Your task to perform on an android device: change your default location settings in chrome Image 0: 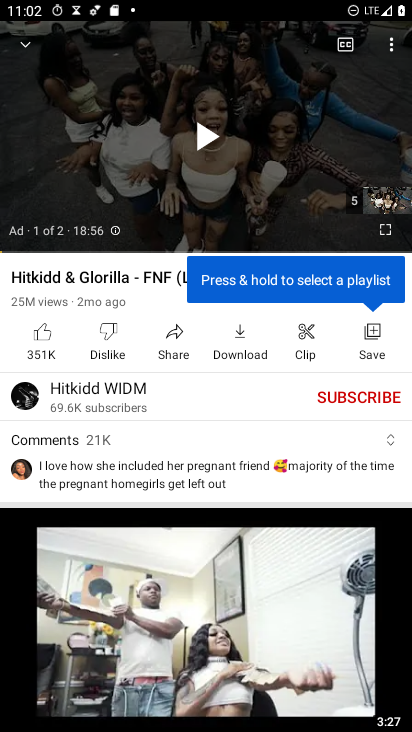
Step 0: press home button
Your task to perform on an android device: change your default location settings in chrome Image 1: 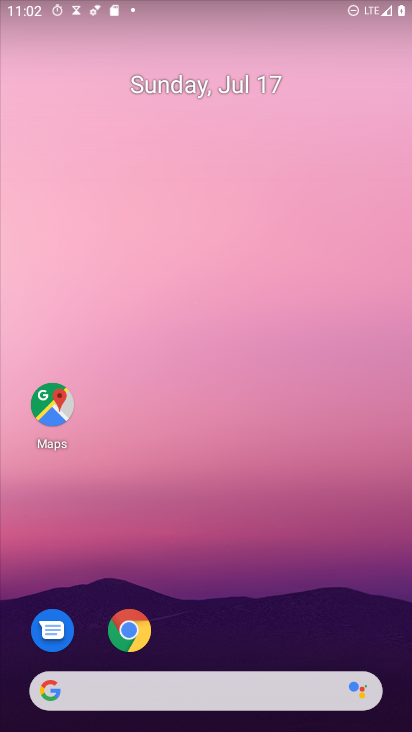
Step 1: drag from (272, 686) to (331, 69)
Your task to perform on an android device: change your default location settings in chrome Image 2: 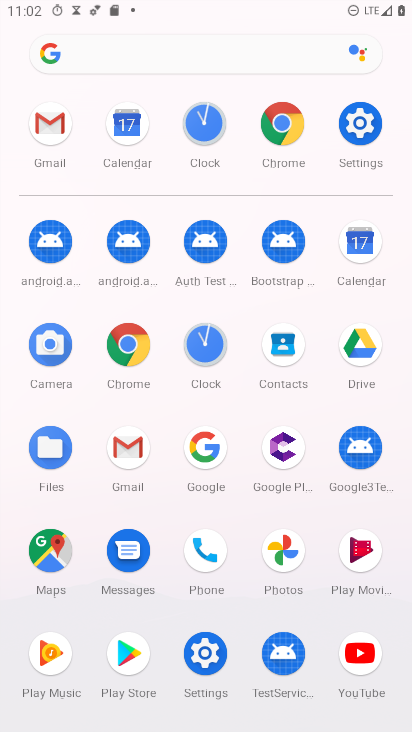
Step 2: click (130, 341)
Your task to perform on an android device: change your default location settings in chrome Image 3: 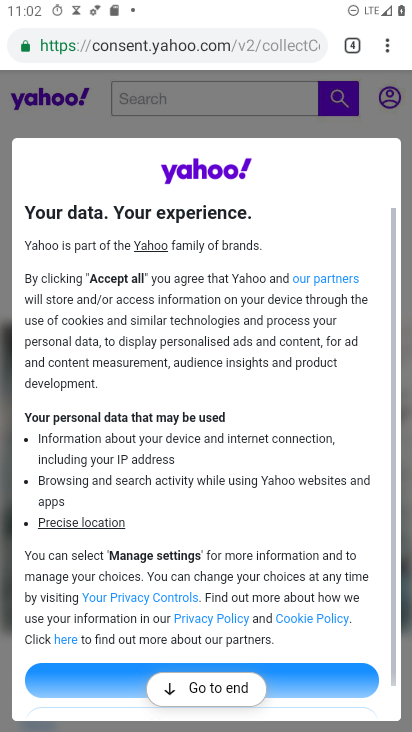
Step 3: click (381, 37)
Your task to perform on an android device: change your default location settings in chrome Image 4: 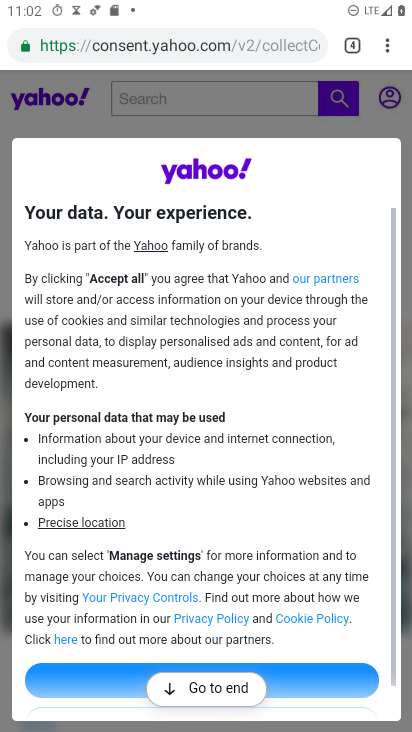
Step 4: drag from (382, 47) to (254, 550)
Your task to perform on an android device: change your default location settings in chrome Image 5: 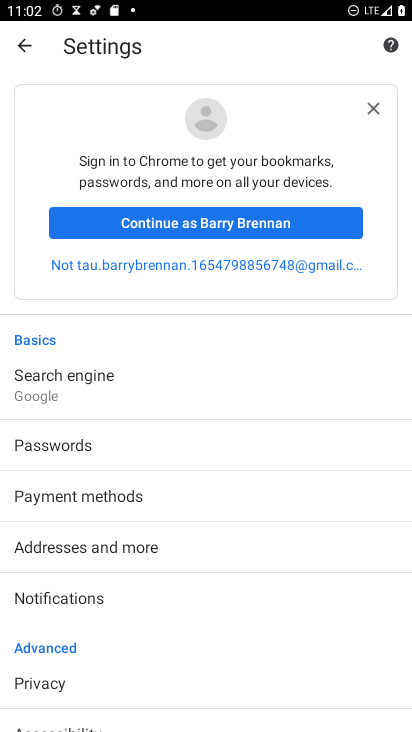
Step 5: drag from (188, 567) to (212, 258)
Your task to perform on an android device: change your default location settings in chrome Image 6: 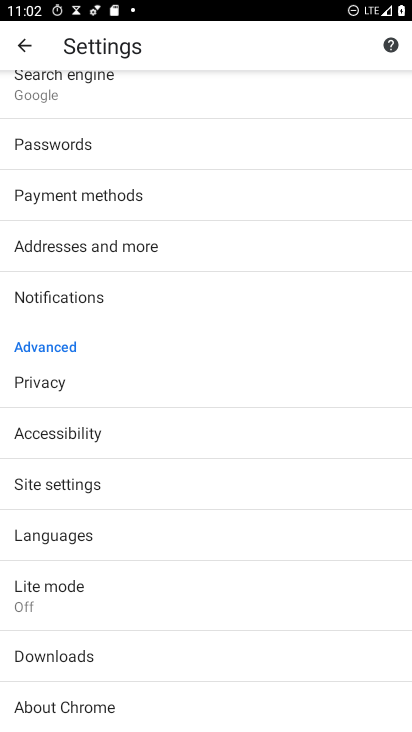
Step 6: click (138, 498)
Your task to perform on an android device: change your default location settings in chrome Image 7: 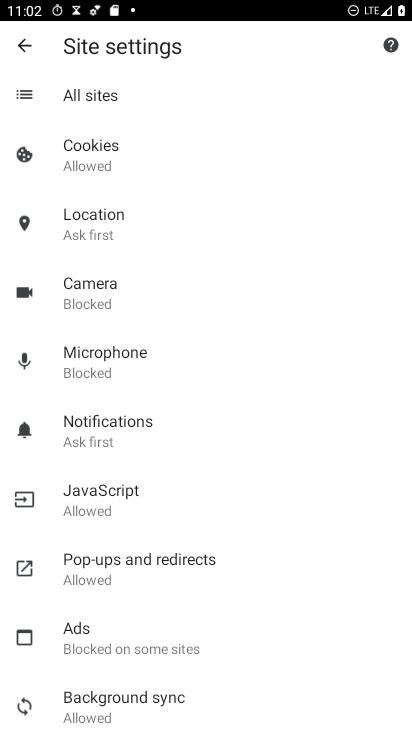
Step 7: click (92, 222)
Your task to perform on an android device: change your default location settings in chrome Image 8: 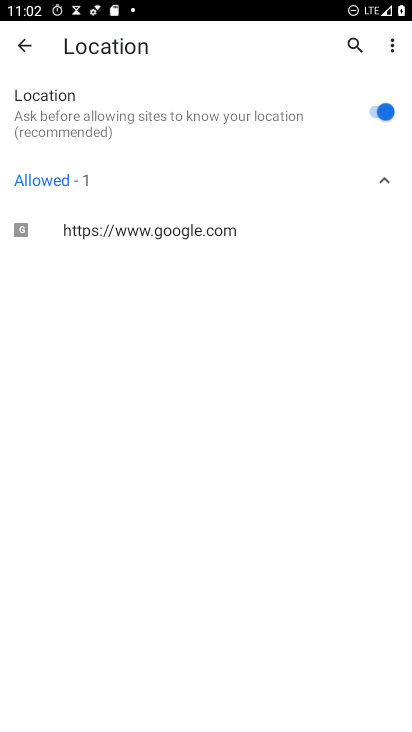
Step 8: click (381, 107)
Your task to perform on an android device: change your default location settings in chrome Image 9: 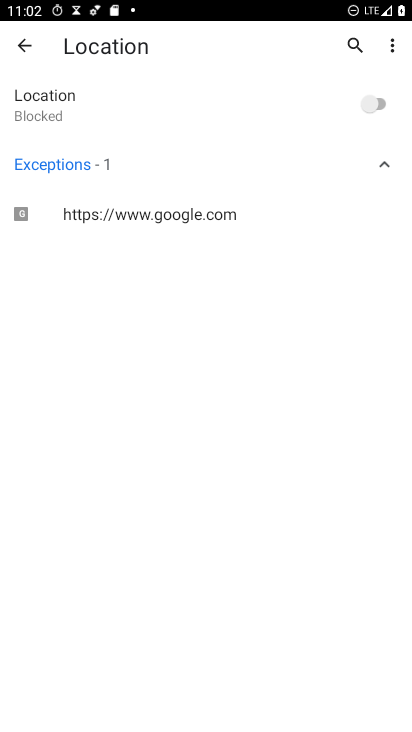
Step 9: task complete